Your task to perform on an android device: turn off translation in the chrome app Image 0: 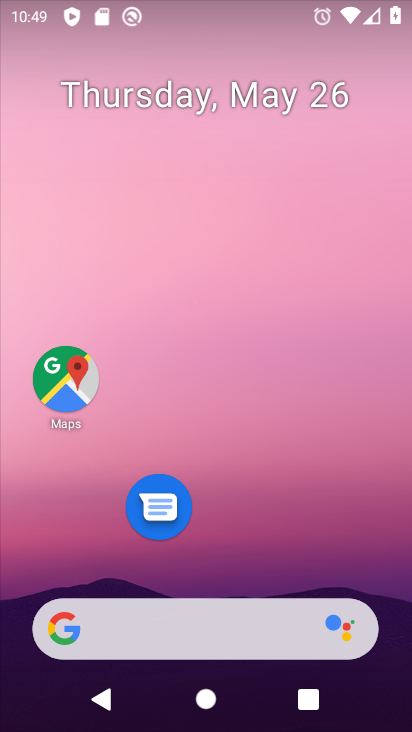
Step 0: drag from (275, 681) to (230, 150)
Your task to perform on an android device: turn off translation in the chrome app Image 1: 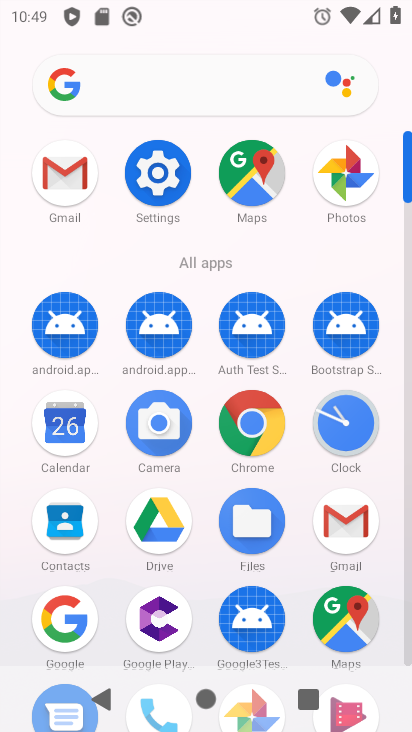
Step 1: click (248, 424)
Your task to perform on an android device: turn off translation in the chrome app Image 2: 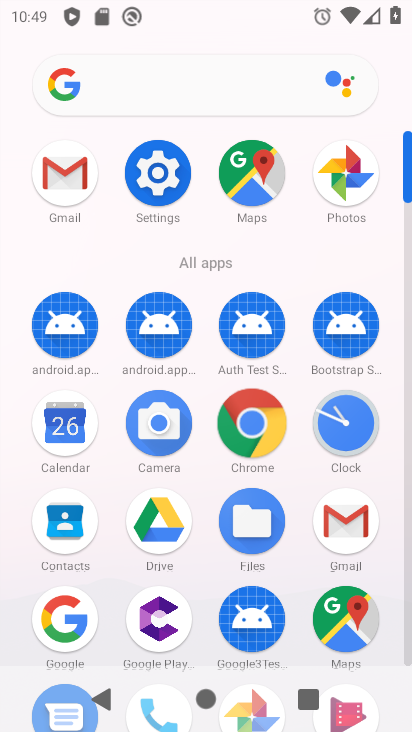
Step 2: click (245, 417)
Your task to perform on an android device: turn off translation in the chrome app Image 3: 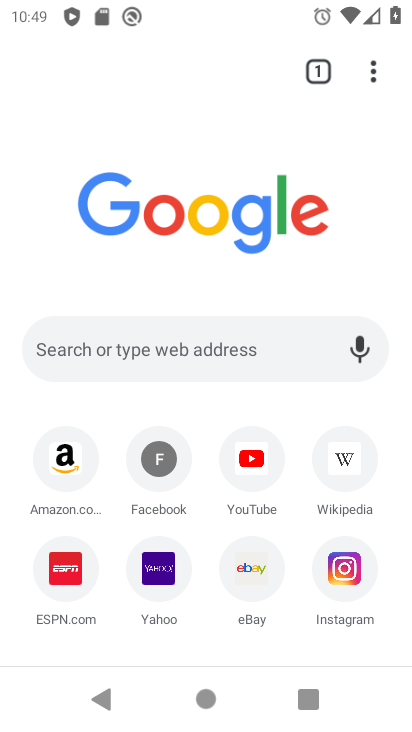
Step 3: click (372, 87)
Your task to perform on an android device: turn off translation in the chrome app Image 4: 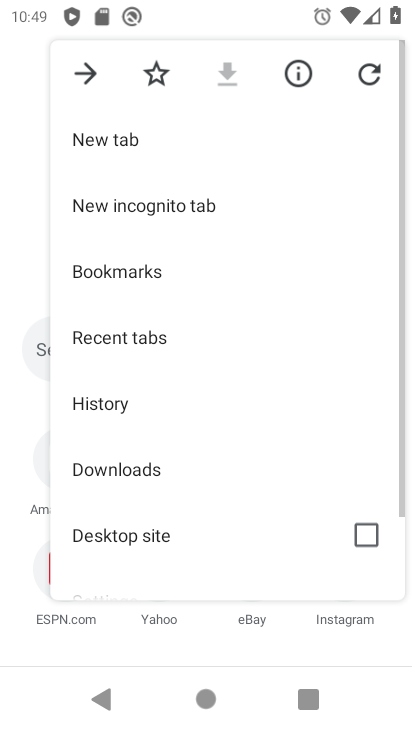
Step 4: drag from (134, 505) to (158, 99)
Your task to perform on an android device: turn off translation in the chrome app Image 5: 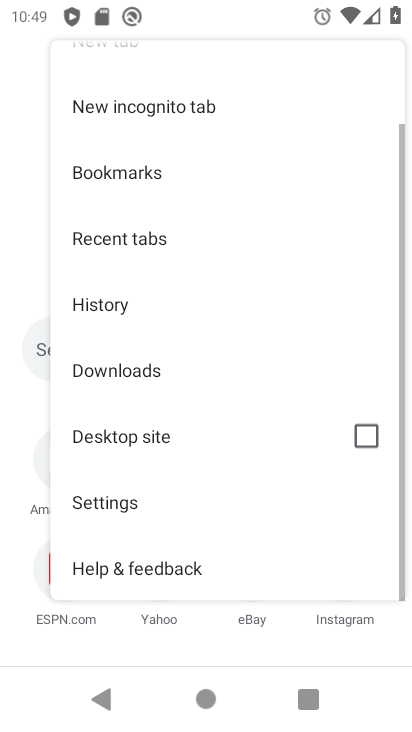
Step 5: drag from (148, 458) to (130, 42)
Your task to perform on an android device: turn off translation in the chrome app Image 6: 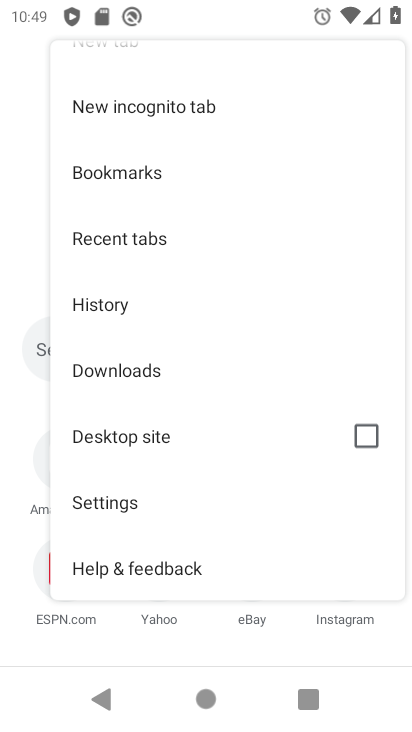
Step 6: click (106, 496)
Your task to perform on an android device: turn off translation in the chrome app Image 7: 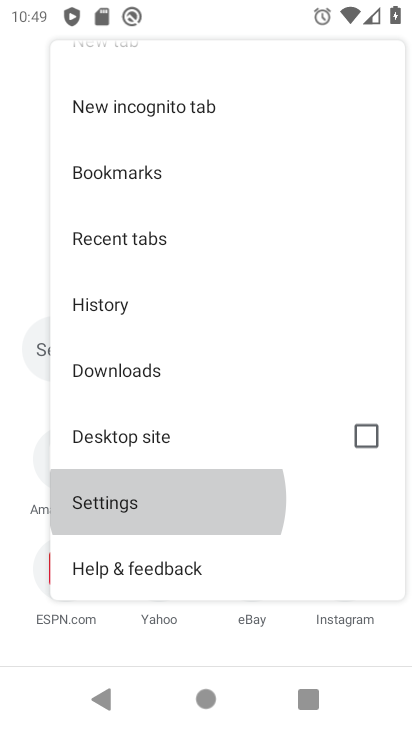
Step 7: click (106, 496)
Your task to perform on an android device: turn off translation in the chrome app Image 8: 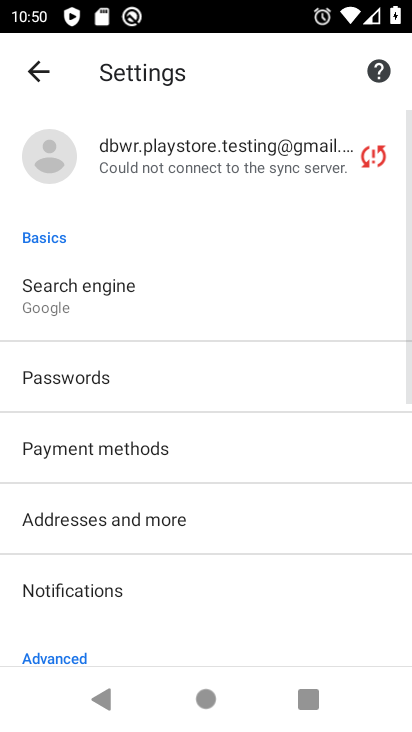
Step 8: drag from (108, 458) to (98, 26)
Your task to perform on an android device: turn off translation in the chrome app Image 9: 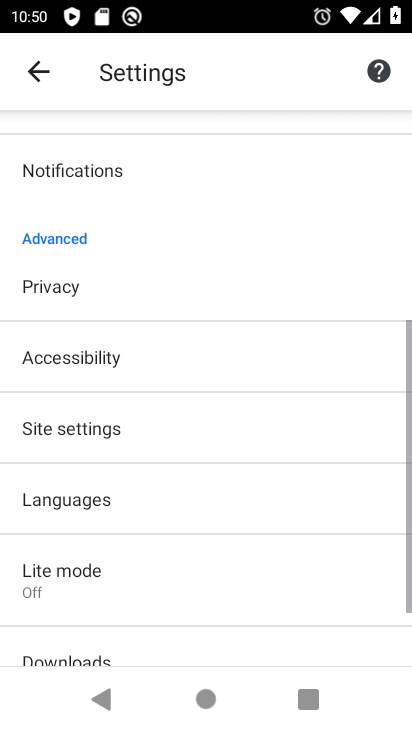
Step 9: drag from (97, 364) to (97, 162)
Your task to perform on an android device: turn off translation in the chrome app Image 10: 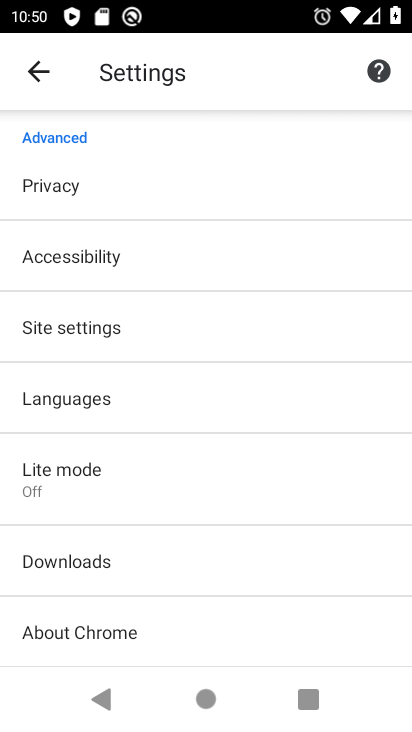
Step 10: click (67, 395)
Your task to perform on an android device: turn off translation in the chrome app Image 11: 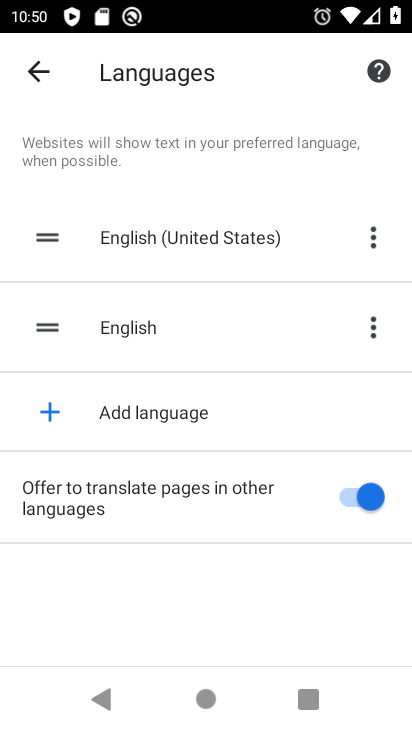
Step 11: click (368, 502)
Your task to perform on an android device: turn off translation in the chrome app Image 12: 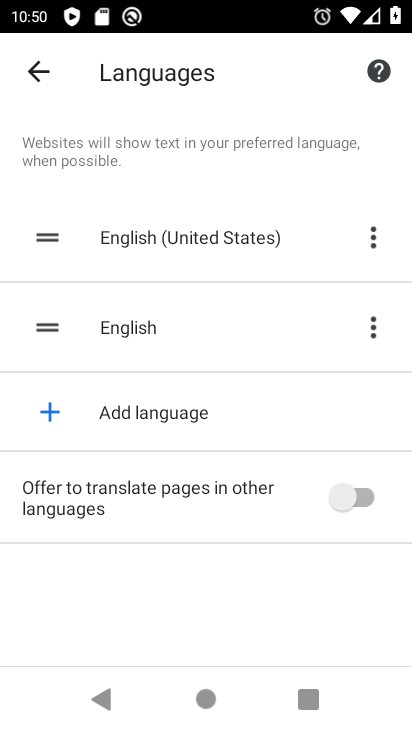
Step 12: task complete